Your task to perform on an android device: Empty the shopping cart on ebay.com. Add "razer nari" to the cart on ebay.com, then select checkout. Image 0: 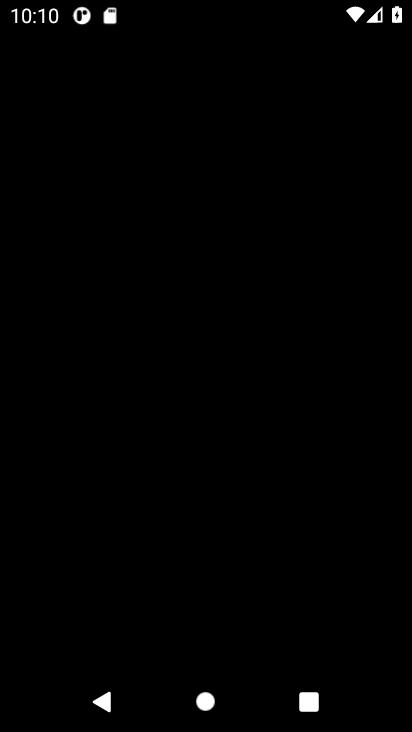
Step 0: press home button
Your task to perform on an android device: Empty the shopping cart on ebay.com. Add "razer nari" to the cart on ebay.com, then select checkout. Image 1: 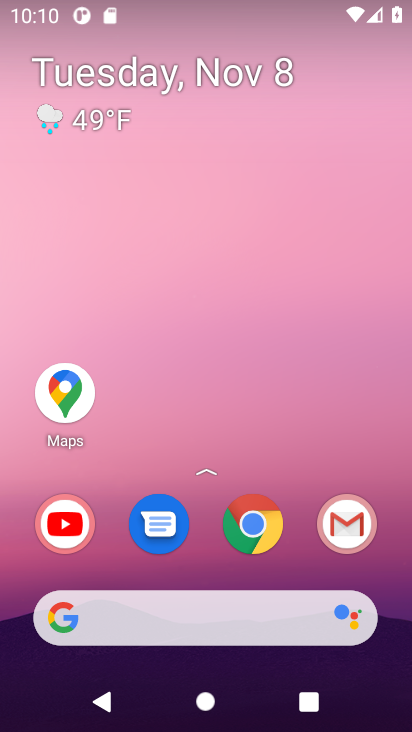
Step 1: click (256, 531)
Your task to perform on an android device: Empty the shopping cart on ebay.com. Add "razer nari" to the cart on ebay.com, then select checkout. Image 2: 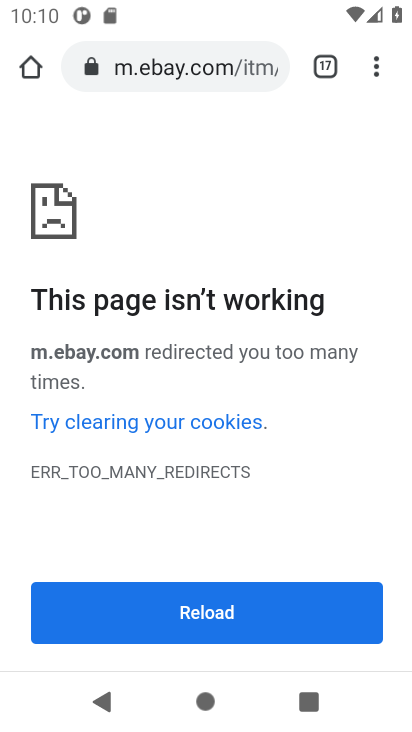
Step 2: click (168, 70)
Your task to perform on an android device: Empty the shopping cart on ebay.com. Add "razer nari" to the cart on ebay.com, then select checkout. Image 3: 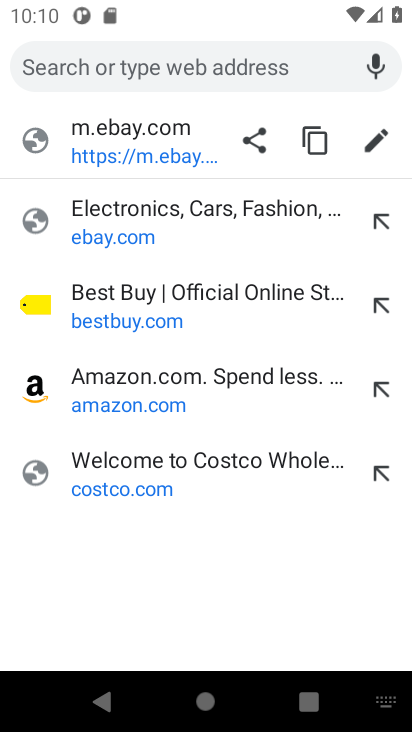
Step 3: click (80, 218)
Your task to perform on an android device: Empty the shopping cart on ebay.com. Add "razer nari" to the cart on ebay.com, then select checkout. Image 4: 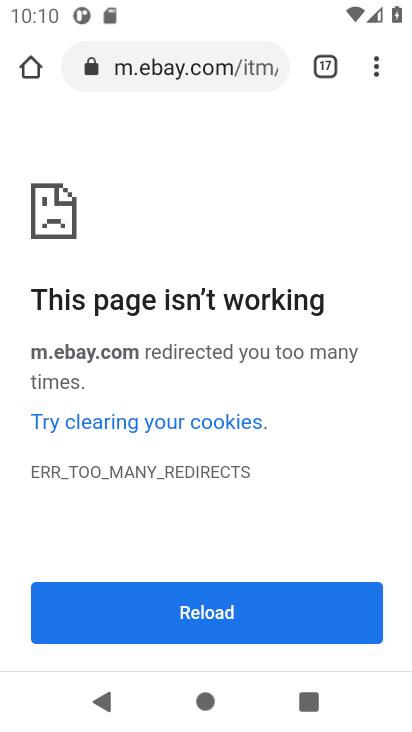
Step 4: press back button
Your task to perform on an android device: Empty the shopping cart on ebay.com. Add "razer nari" to the cart on ebay.com, then select checkout. Image 5: 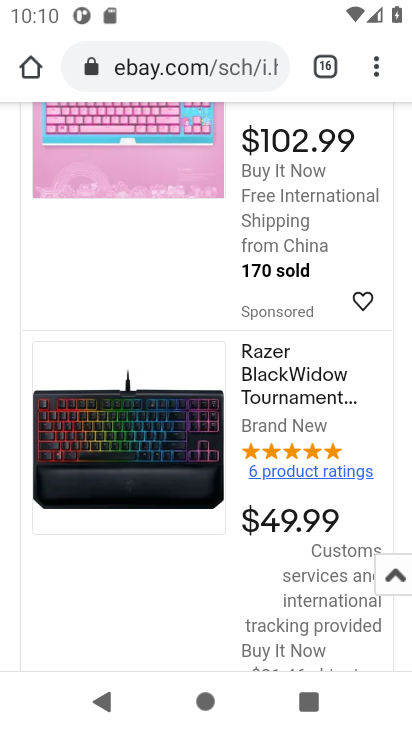
Step 5: drag from (193, 199) to (195, 682)
Your task to perform on an android device: Empty the shopping cart on ebay.com. Add "razer nari" to the cart on ebay.com, then select checkout. Image 6: 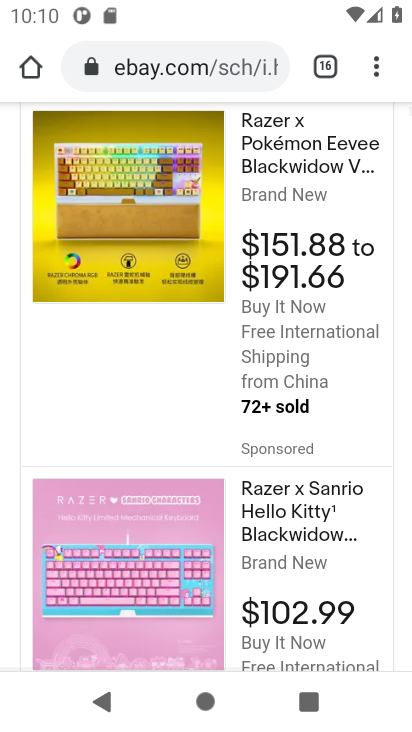
Step 6: drag from (191, 214) to (185, 689)
Your task to perform on an android device: Empty the shopping cart on ebay.com. Add "razer nari" to the cart on ebay.com, then select checkout. Image 7: 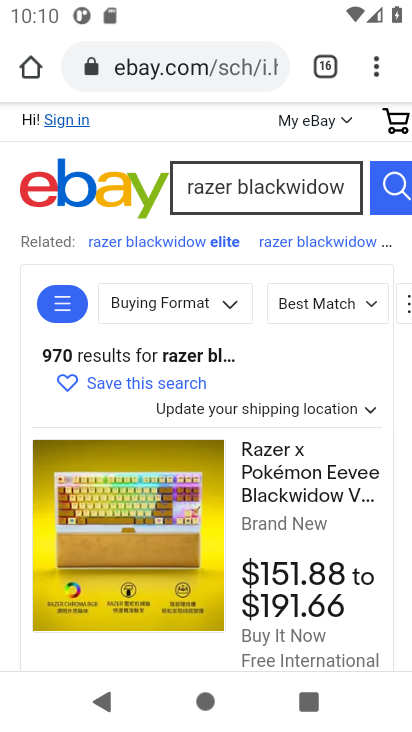
Step 7: click (396, 119)
Your task to perform on an android device: Empty the shopping cart on ebay.com. Add "razer nari" to the cart on ebay.com, then select checkout. Image 8: 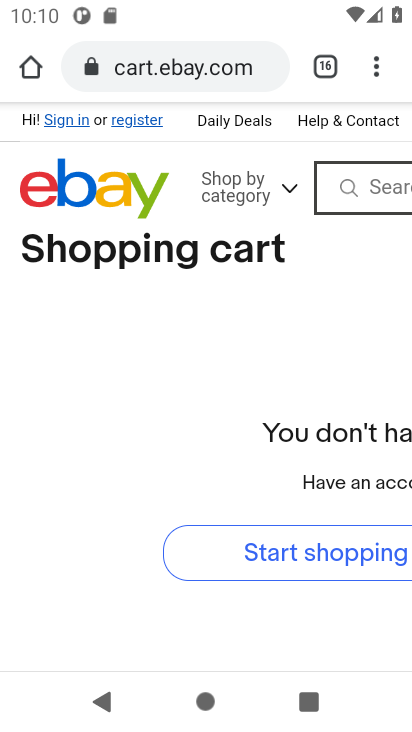
Step 8: drag from (271, 368) to (29, 346)
Your task to perform on an android device: Empty the shopping cart on ebay.com. Add "razer nari" to the cart on ebay.com, then select checkout. Image 9: 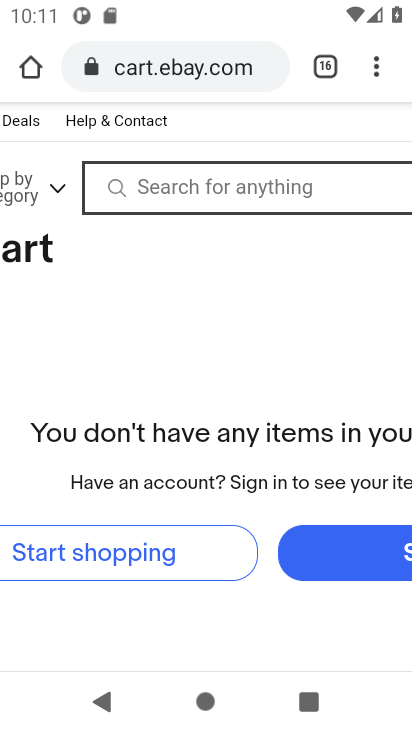
Step 9: click (178, 173)
Your task to perform on an android device: Empty the shopping cart on ebay.com. Add "razer nari" to the cart on ebay.com, then select checkout. Image 10: 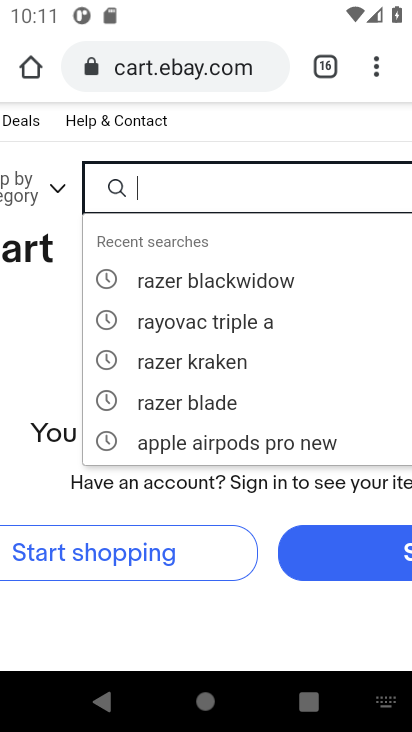
Step 10: type "razer nari"
Your task to perform on an android device: Empty the shopping cart on ebay.com. Add "razer nari" to the cart on ebay.com, then select checkout. Image 11: 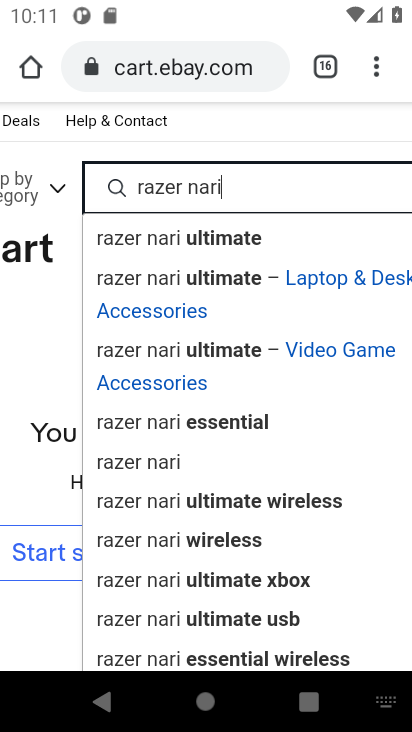
Step 11: click (146, 468)
Your task to perform on an android device: Empty the shopping cart on ebay.com. Add "razer nari" to the cart on ebay.com, then select checkout. Image 12: 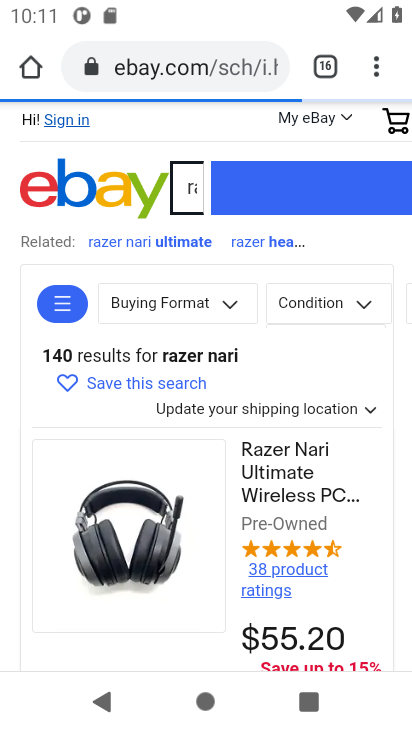
Step 12: drag from (213, 517) to (199, 240)
Your task to perform on an android device: Empty the shopping cart on ebay.com. Add "razer nari" to the cart on ebay.com, then select checkout. Image 13: 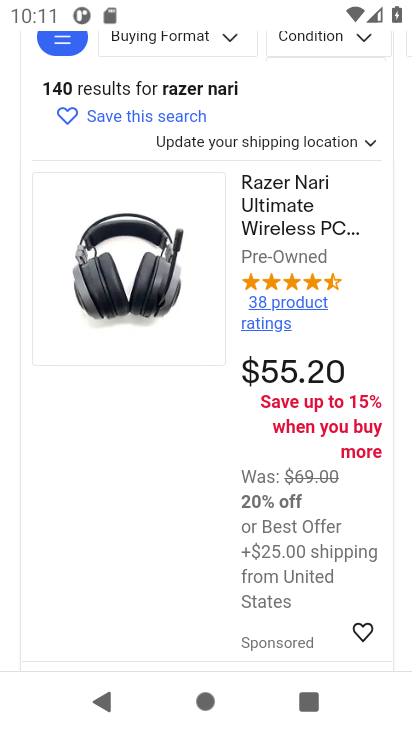
Step 13: click (162, 364)
Your task to perform on an android device: Empty the shopping cart on ebay.com. Add "razer nari" to the cart on ebay.com, then select checkout. Image 14: 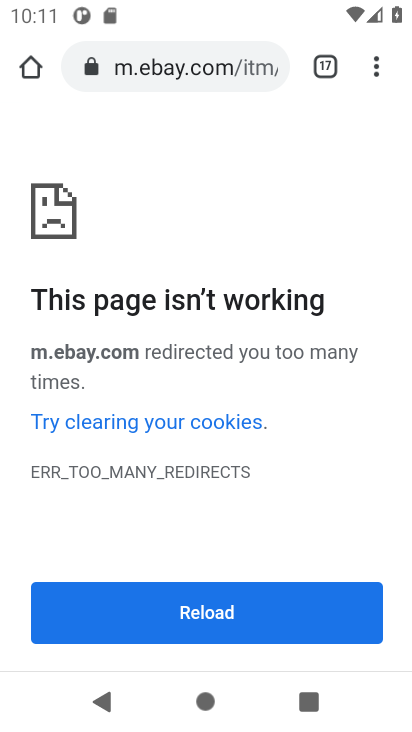
Step 14: task complete